Your task to perform on an android device: Clear the cart on target. Search for "asus zenbook" on target, select the first entry, add it to the cart, then select checkout. Image 0: 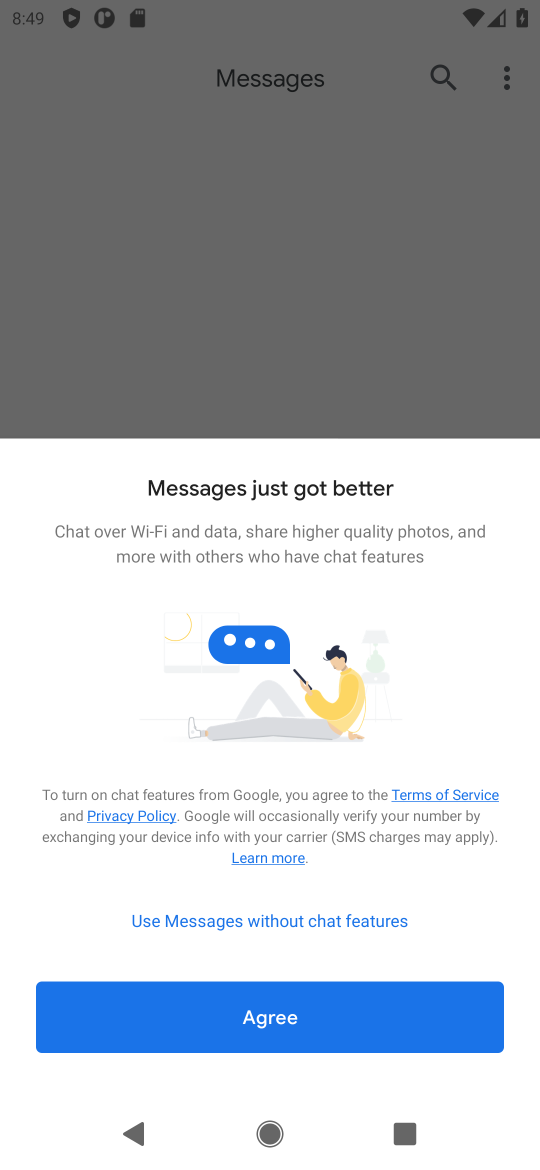
Step 0: press home button
Your task to perform on an android device: Clear the cart on target. Search for "asus zenbook" on target, select the first entry, add it to the cart, then select checkout. Image 1: 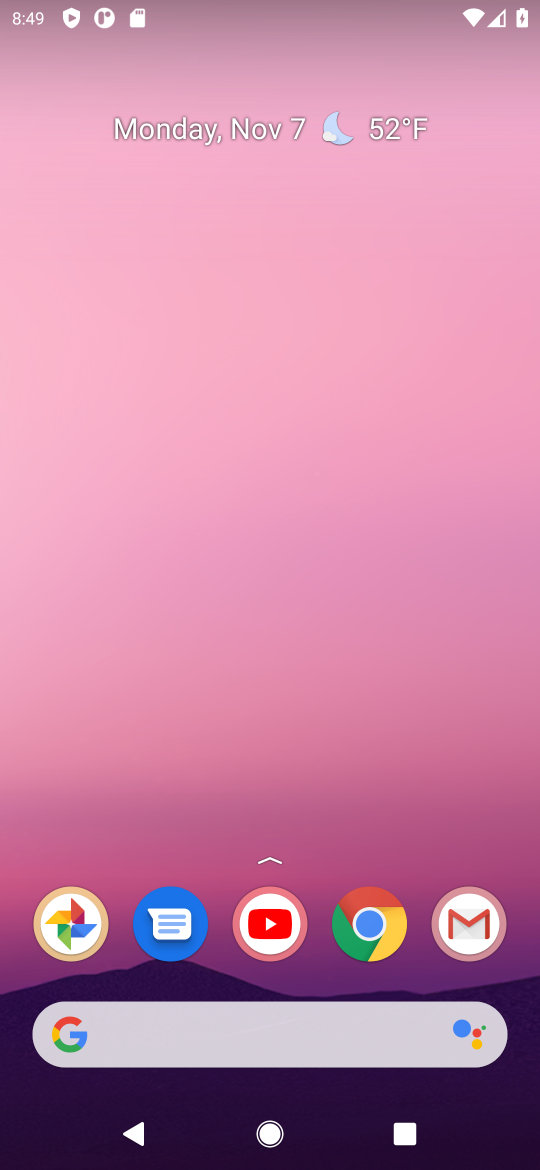
Step 1: click (376, 921)
Your task to perform on an android device: Clear the cart on target. Search for "asus zenbook" on target, select the first entry, add it to the cart, then select checkout. Image 2: 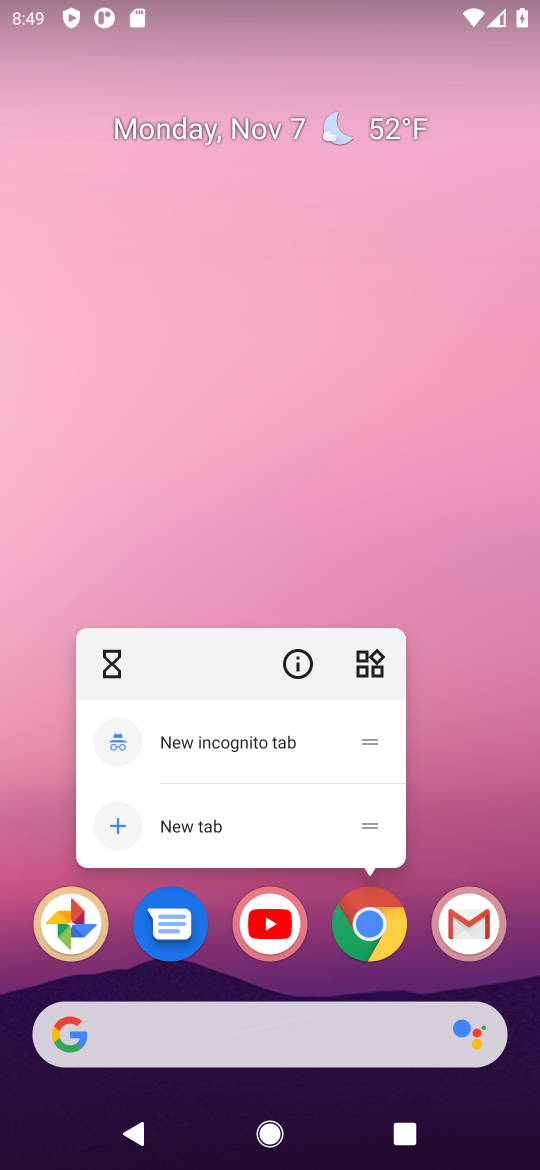
Step 2: click (375, 928)
Your task to perform on an android device: Clear the cart on target. Search for "asus zenbook" on target, select the first entry, add it to the cart, then select checkout. Image 3: 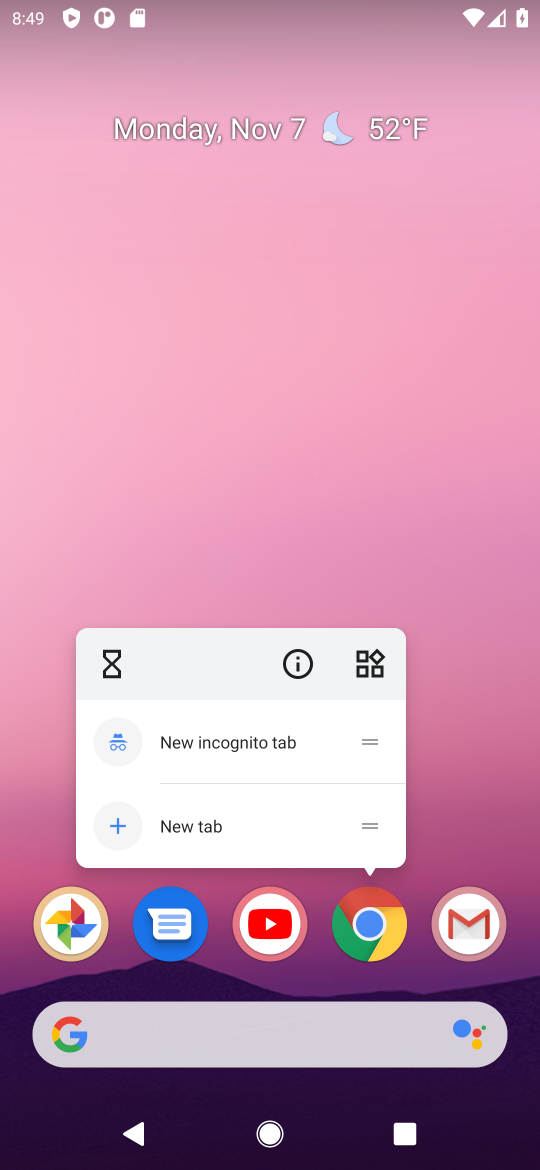
Step 3: click (393, 944)
Your task to perform on an android device: Clear the cart on target. Search for "asus zenbook" on target, select the first entry, add it to the cart, then select checkout. Image 4: 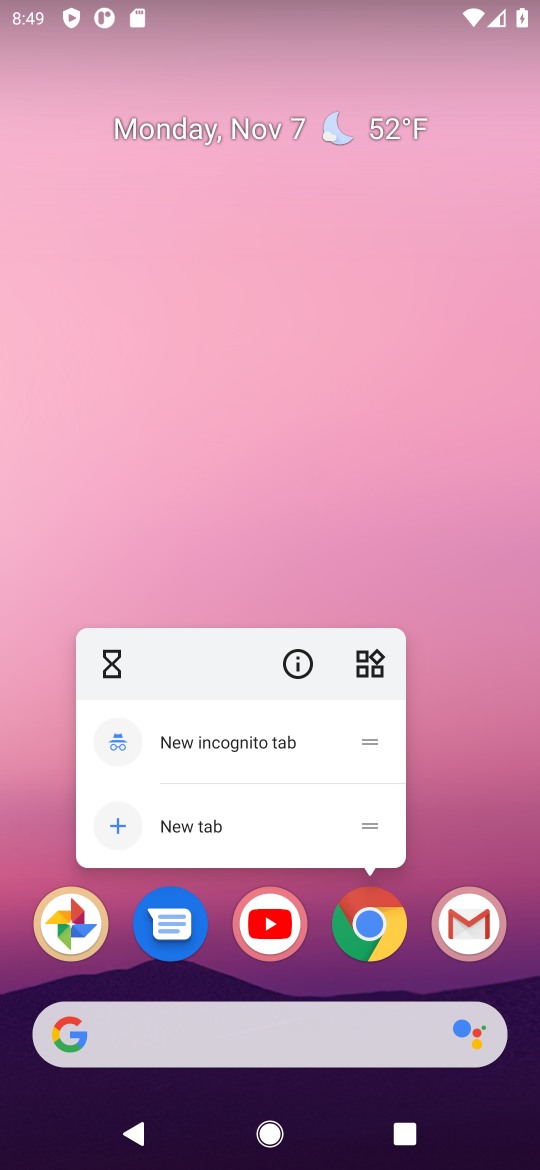
Step 4: click (371, 939)
Your task to perform on an android device: Clear the cart on target. Search for "asus zenbook" on target, select the first entry, add it to the cart, then select checkout. Image 5: 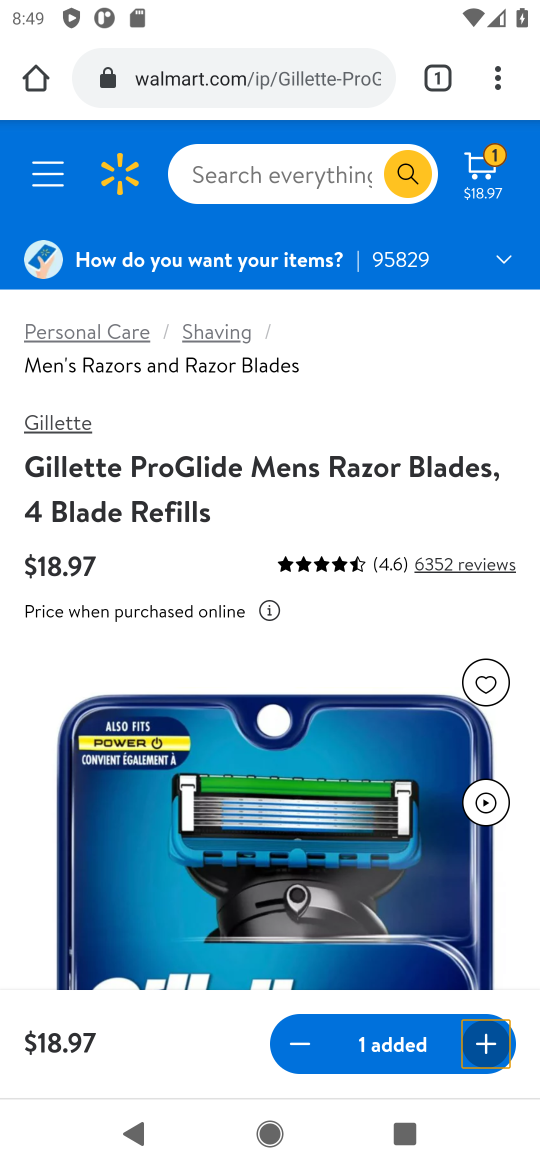
Step 5: click (255, 81)
Your task to perform on an android device: Clear the cart on target. Search for "asus zenbook" on target, select the first entry, add it to the cart, then select checkout. Image 6: 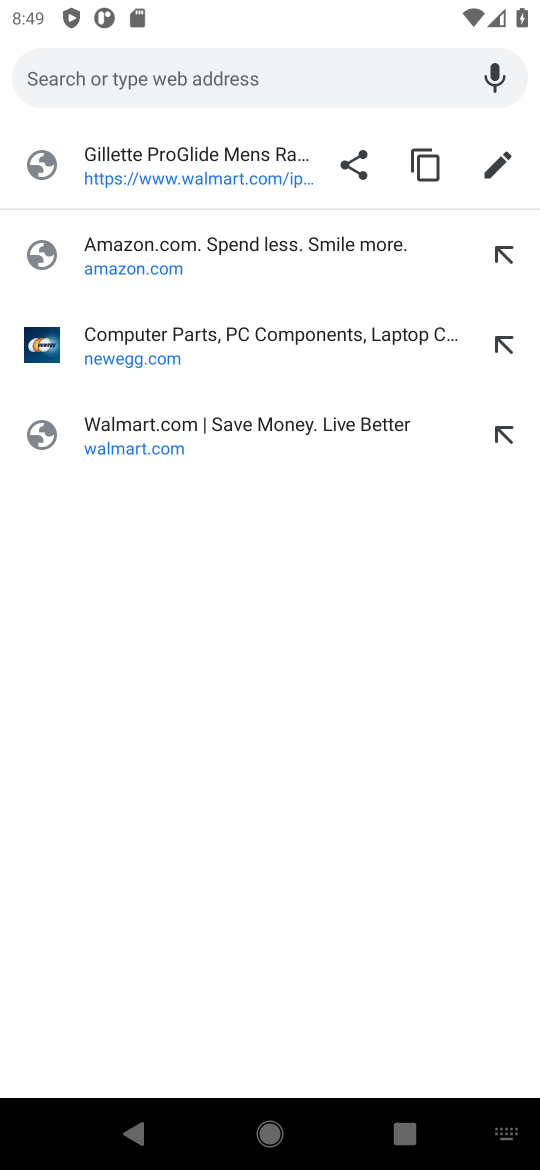
Step 6: click (242, 84)
Your task to perform on an android device: Clear the cart on target. Search for "asus zenbook" on target, select the first entry, add it to the cart, then select checkout. Image 7: 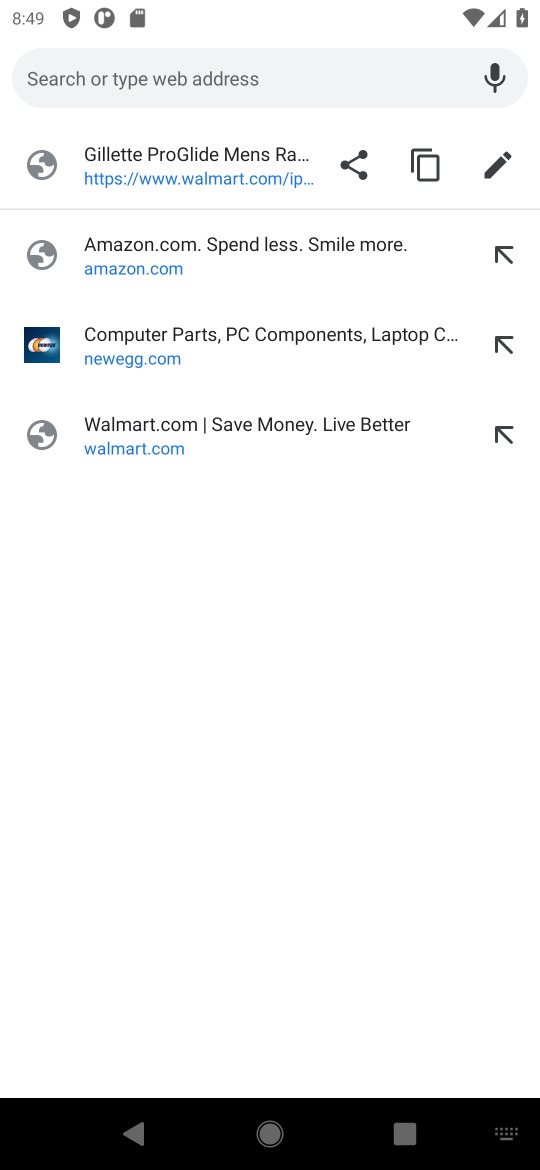
Step 7: type "target,com"
Your task to perform on an android device: Clear the cart on target. Search for "asus zenbook" on target, select the first entry, add it to the cart, then select checkout. Image 8: 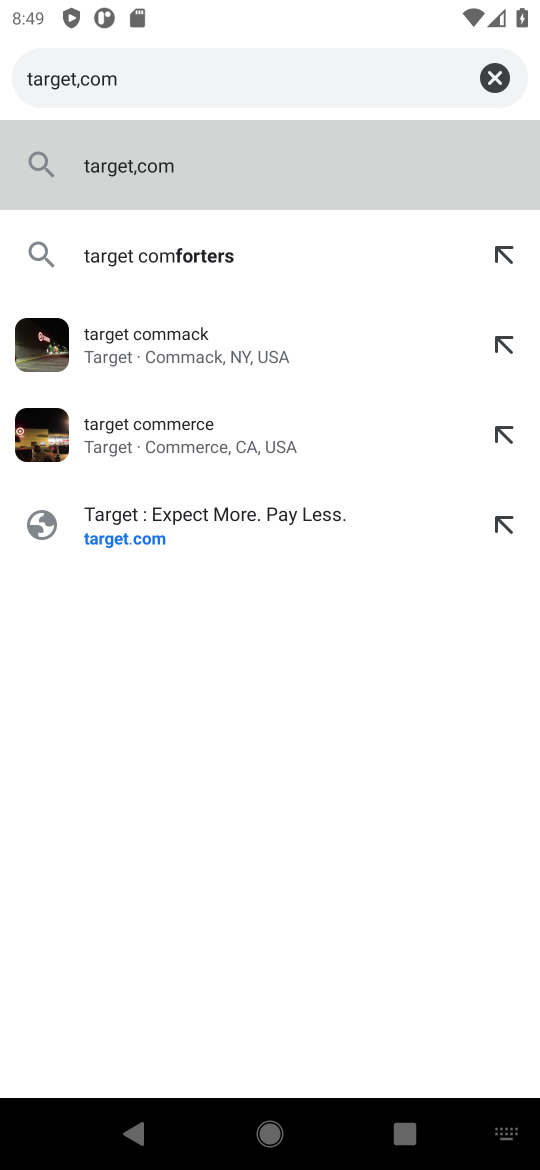
Step 8: press enter
Your task to perform on an android device: Clear the cart on target. Search for "asus zenbook" on target, select the first entry, add it to the cart, then select checkout. Image 9: 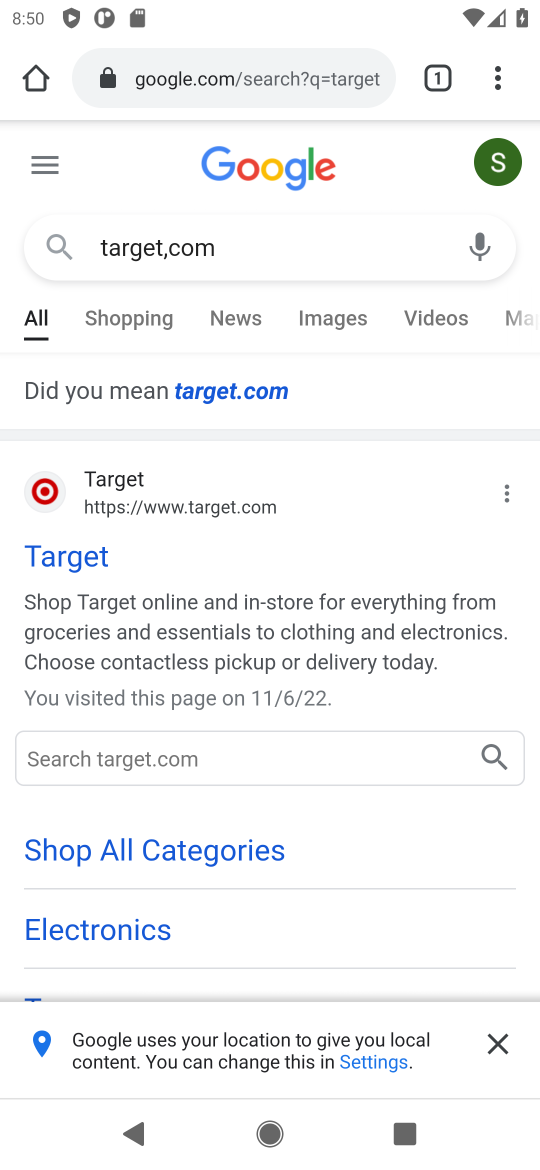
Step 9: click (78, 570)
Your task to perform on an android device: Clear the cart on target. Search for "asus zenbook" on target, select the first entry, add it to the cart, then select checkout. Image 10: 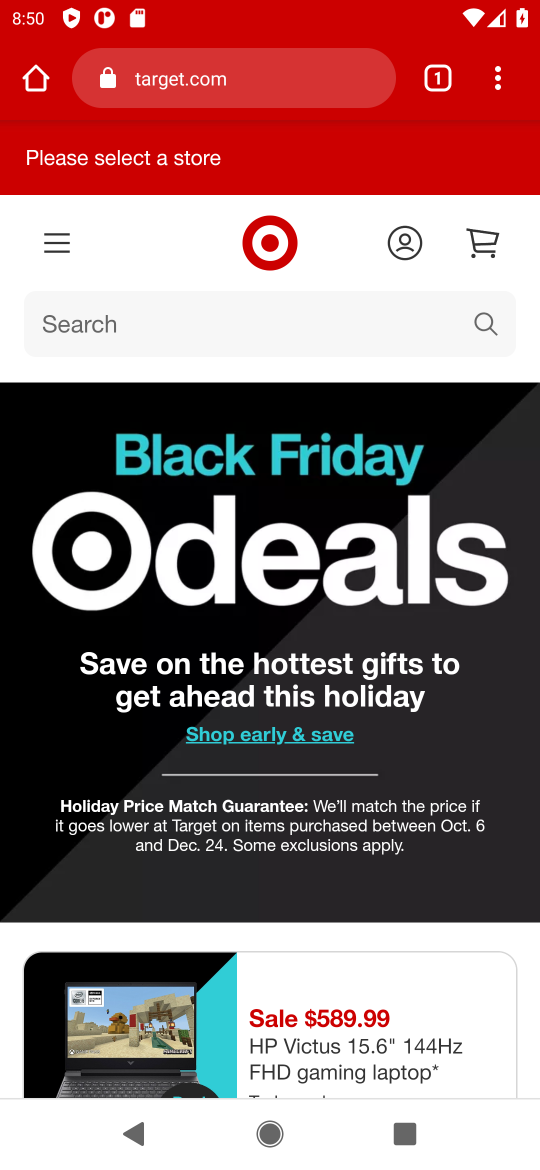
Step 10: click (221, 319)
Your task to perform on an android device: Clear the cart on target. Search for "asus zenbook" on target, select the first entry, add it to the cart, then select checkout. Image 11: 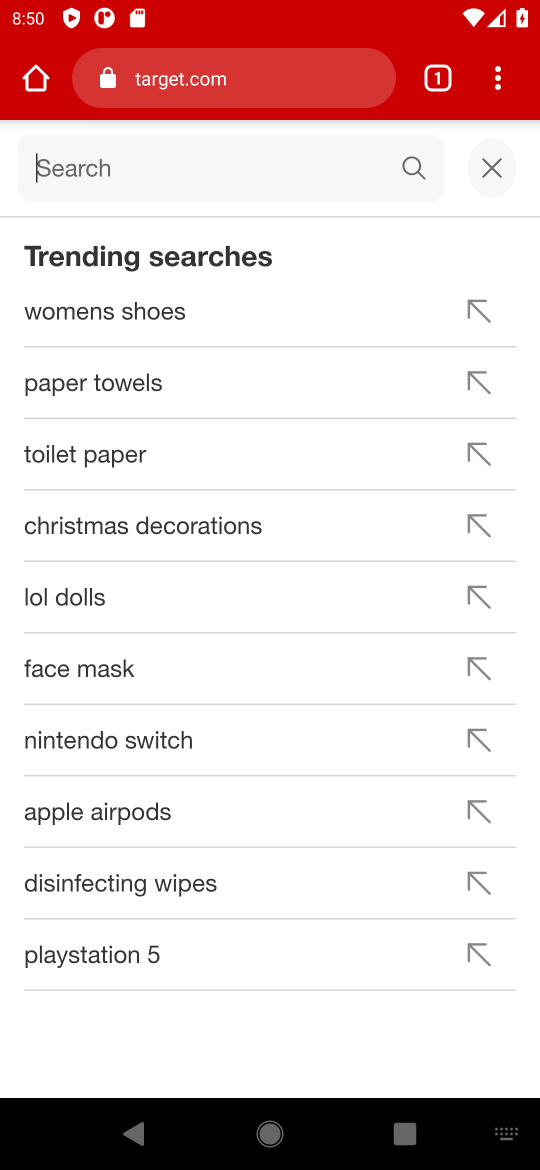
Step 11: type "asus zenbook"
Your task to perform on an android device: Clear the cart on target. Search for "asus zenbook" on target, select the first entry, add it to the cart, then select checkout. Image 12: 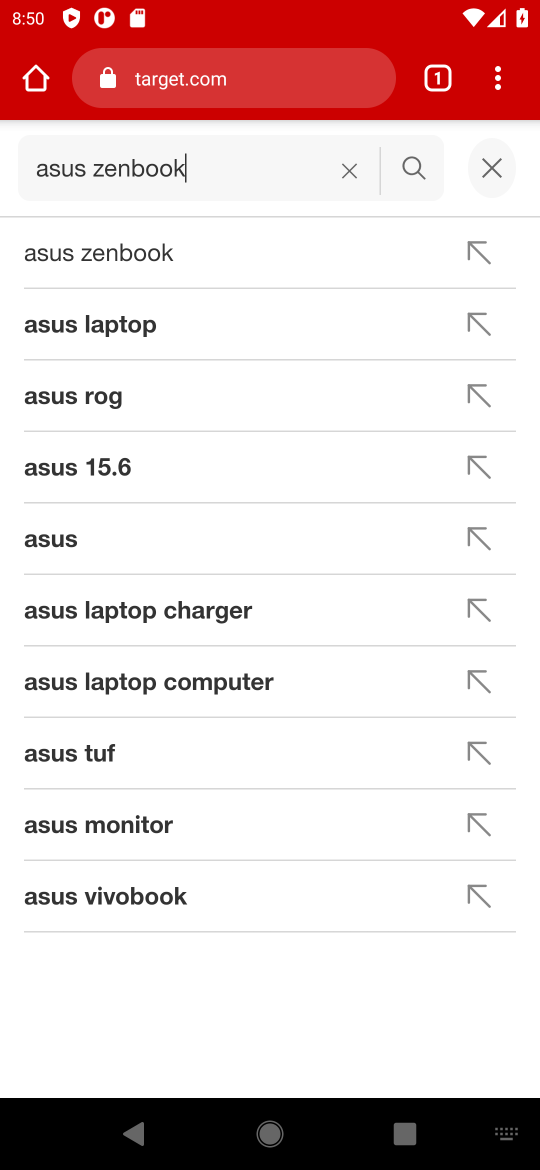
Step 12: press enter
Your task to perform on an android device: Clear the cart on target. Search for "asus zenbook" on target, select the first entry, add it to the cart, then select checkout. Image 13: 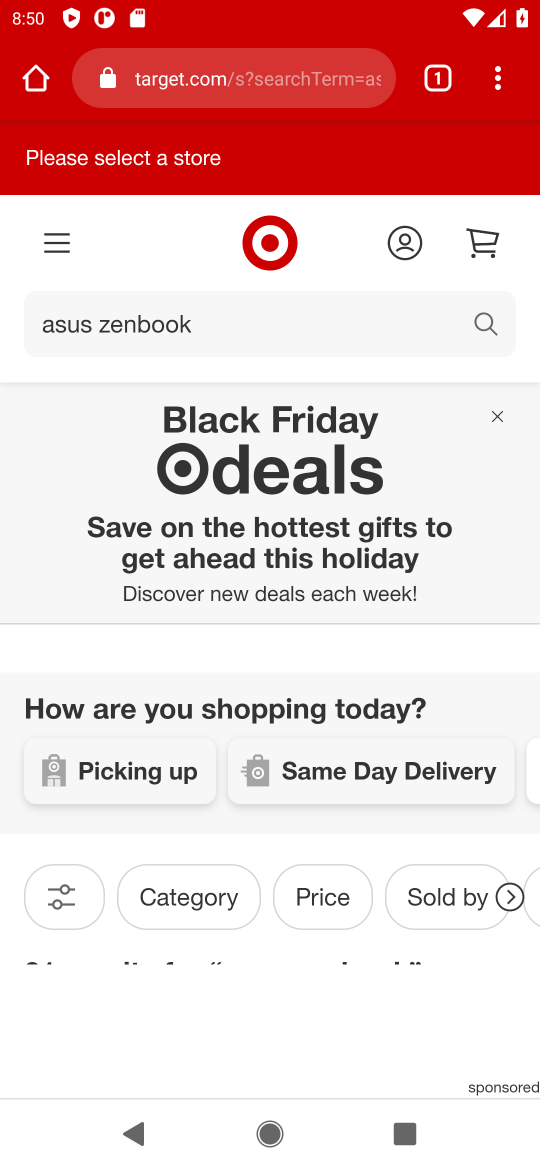
Step 13: drag from (246, 961) to (102, 190)
Your task to perform on an android device: Clear the cart on target. Search for "asus zenbook" on target, select the first entry, add it to the cart, then select checkout. Image 14: 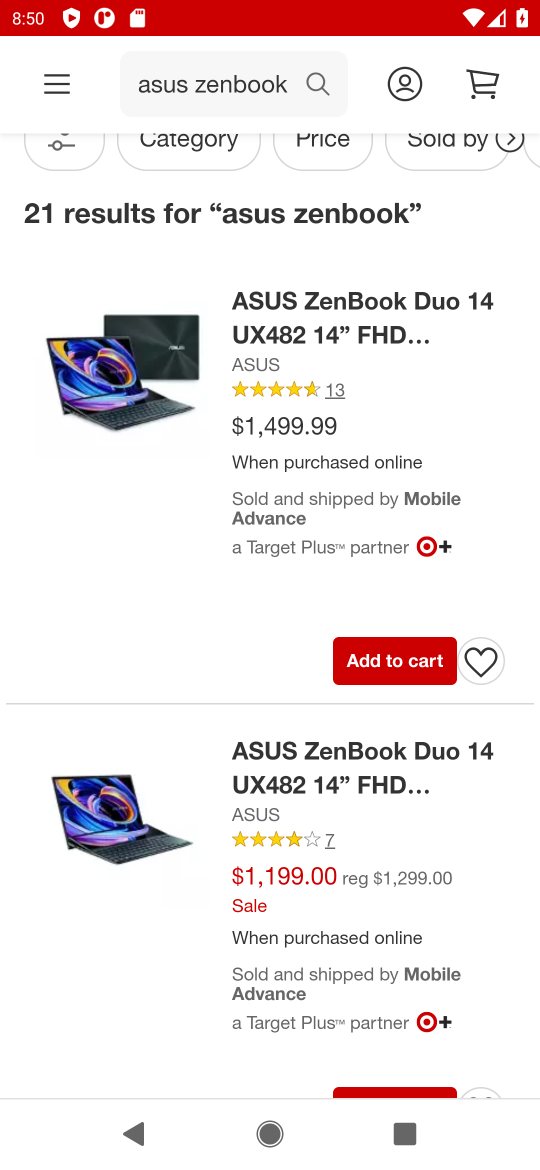
Step 14: click (395, 660)
Your task to perform on an android device: Clear the cart on target. Search for "asus zenbook" on target, select the first entry, add it to the cart, then select checkout. Image 15: 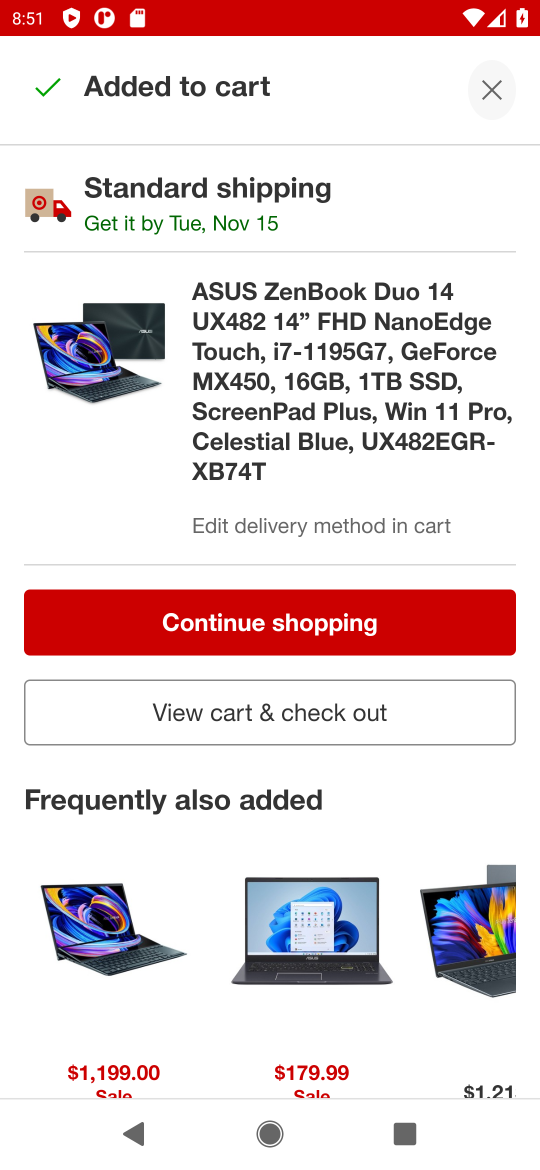
Step 15: click (424, 731)
Your task to perform on an android device: Clear the cart on target. Search for "asus zenbook" on target, select the first entry, add it to the cart, then select checkout. Image 16: 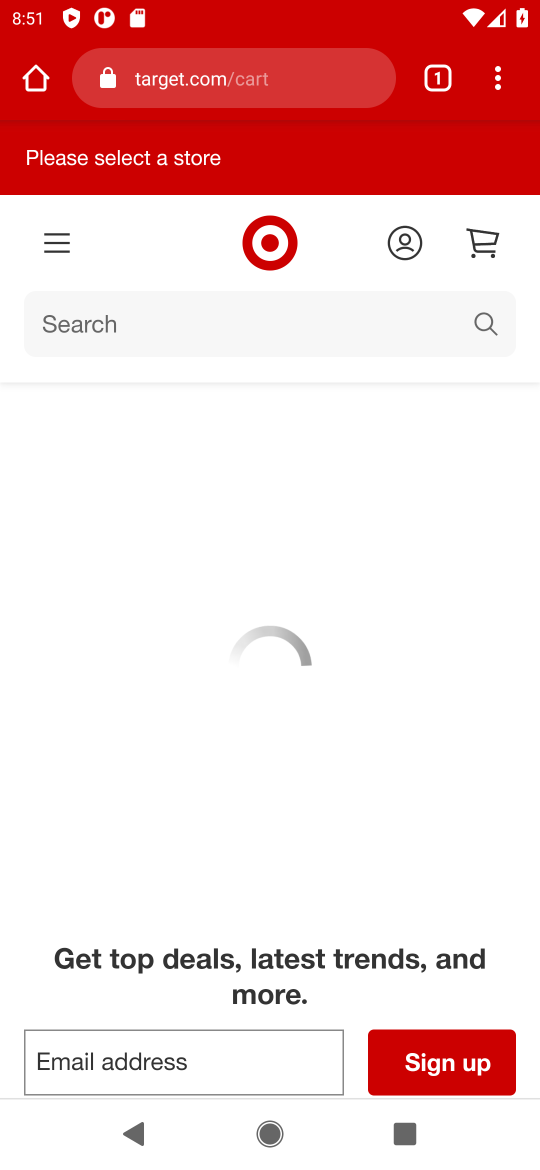
Step 16: task complete